Your task to perform on an android device: Show me productivity apps on the Play Store Image 0: 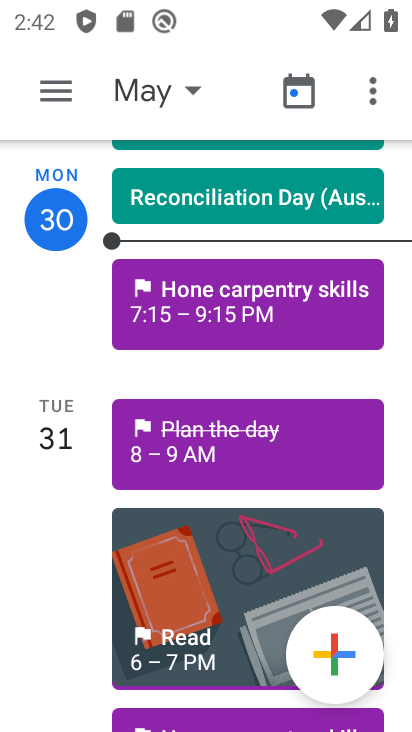
Step 0: press home button
Your task to perform on an android device: Show me productivity apps on the Play Store Image 1: 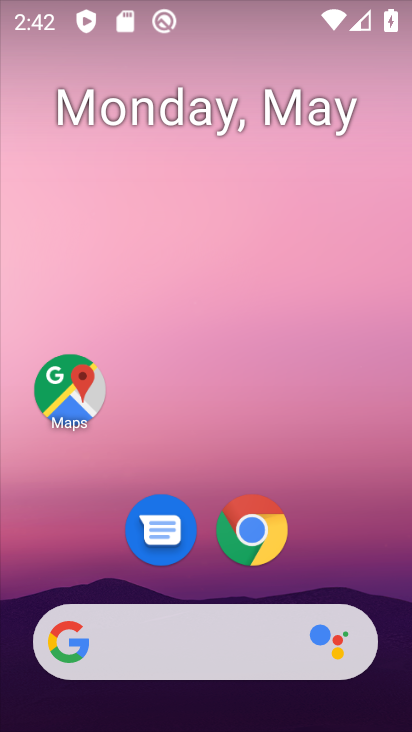
Step 1: drag from (188, 589) to (398, 222)
Your task to perform on an android device: Show me productivity apps on the Play Store Image 2: 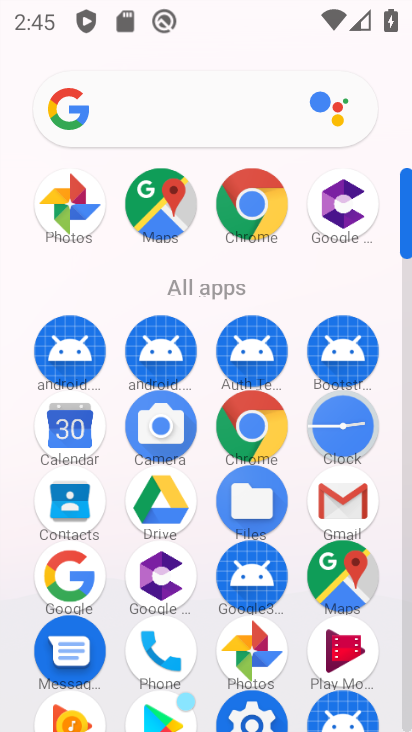
Step 2: click (145, 707)
Your task to perform on an android device: Show me productivity apps on the Play Store Image 3: 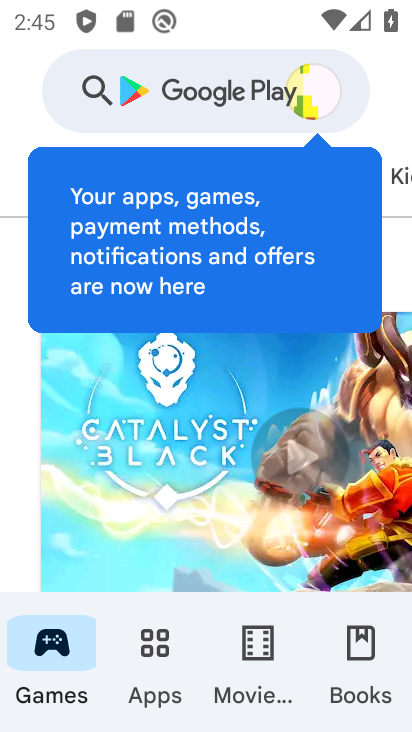
Step 3: click (321, 465)
Your task to perform on an android device: Show me productivity apps on the Play Store Image 4: 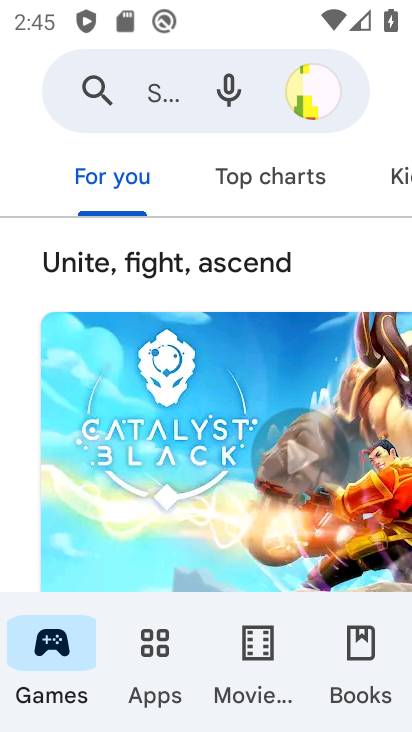
Step 4: click (149, 652)
Your task to perform on an android device: Show me productivity apps on the Play Store Image 5: 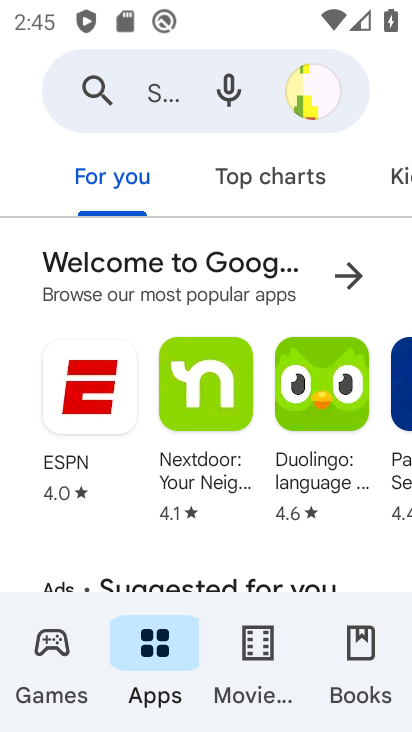
Step 5: click (273, 152)
Your task to perform on an android device: Show me productivity apps on the Play Store Image 6: 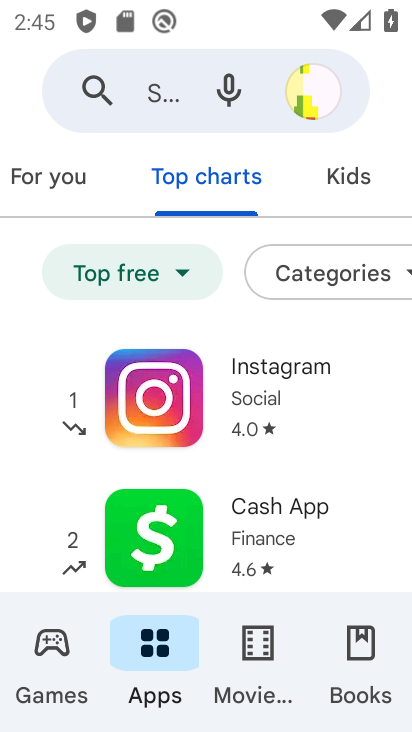
Step 6: click (377, 178)
Your task to perform on an android device: Show me productivity apps on the Play Store Image 7: 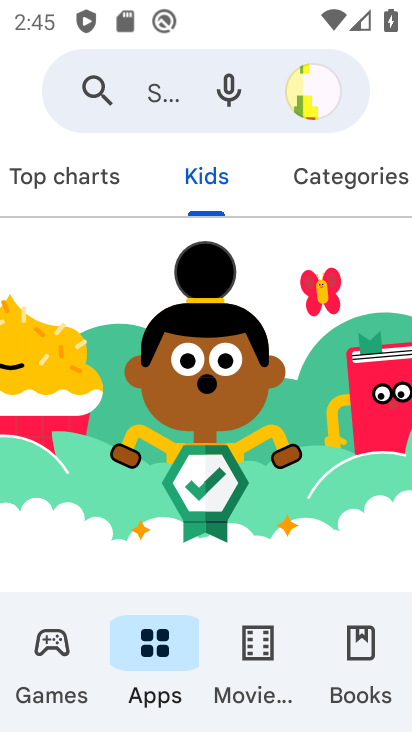
Step 7: click (366, 180)
Your task to perform on an android device: Show me productivity apps on the Play Store Image 8: 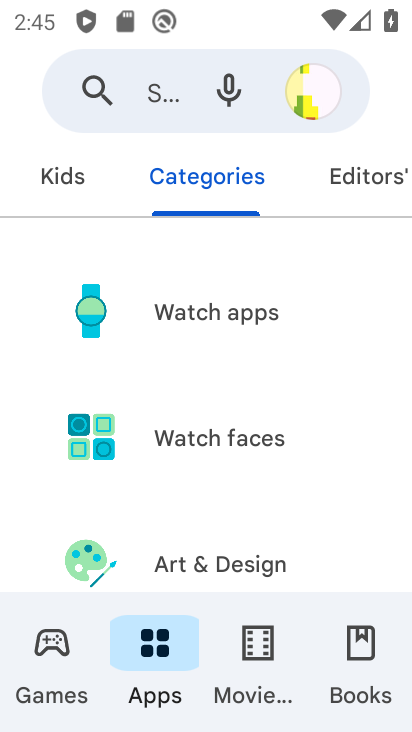
Step 8: drag from (117, 479) to (149, 96)
Your task to perform on an android device: Show me productivity apps on the Play Store Image 9: 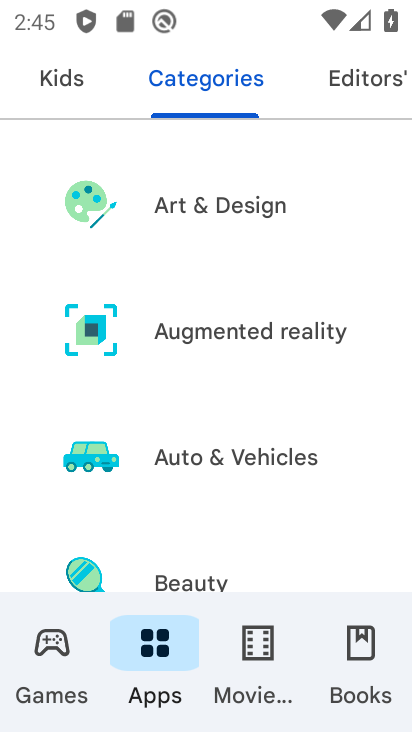
Step 9: drag from (108, 467) to (146, 201)
Your task to perform on an android device: Show me productivity apps on the Play Store Image 10: 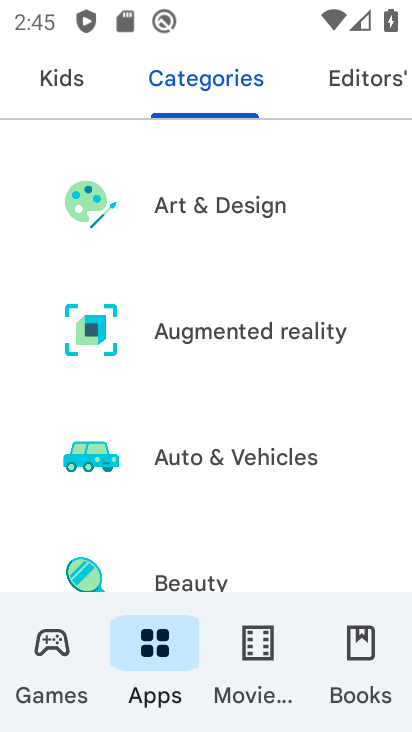
Step 10: drag from (117, 392) to (145, 150)
Your task to perform on an android device: Show me productivity apps on the Play Store Image 11: 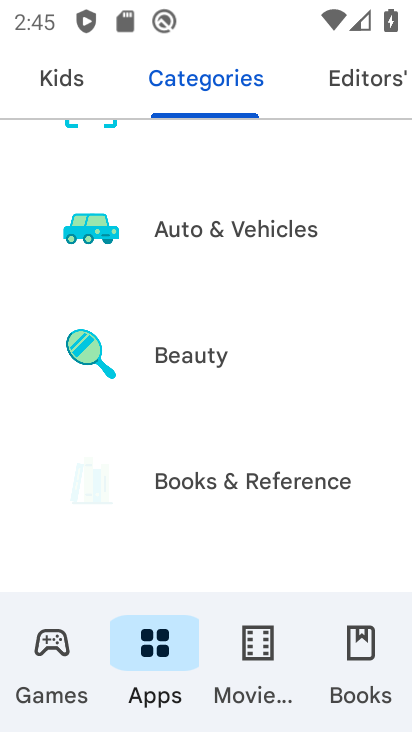
Step 11: drag from (104, 205) to (93, 111)
Your task to perform on an android device: Show me productivity apps on the Play Store Image 12: 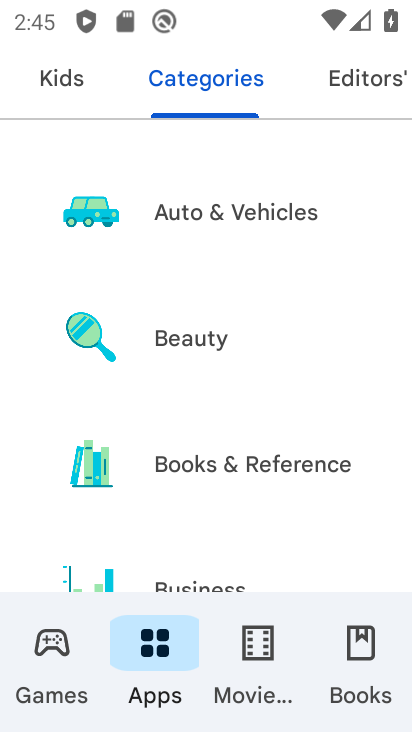
Step 12: drag from (69, 574) to (179, 104)
Your task to perform on an android device: Show me productivity apps on the Play Store Image 13: 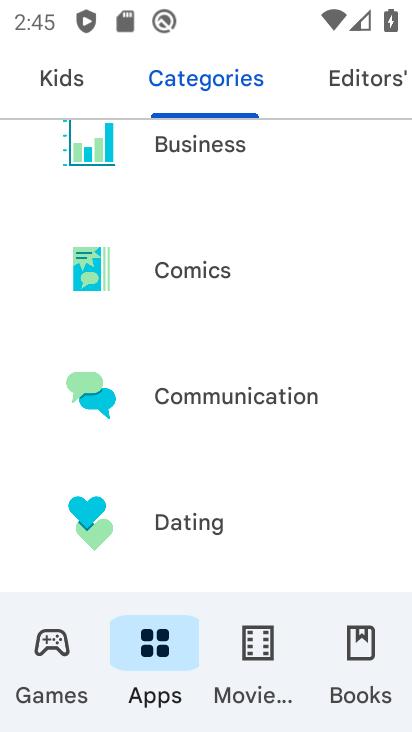
Step 13: drag from (38, 532) to (106, 23)
Your task to perform on an android device: Show me productivity apps on the Play Store Image 14: 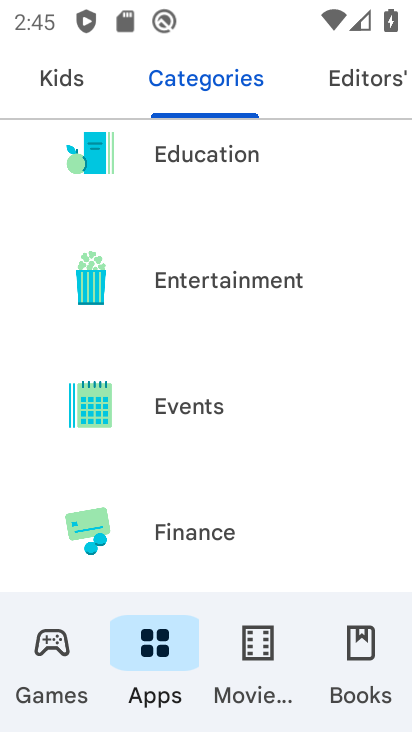
Step 14: drag from (66, 575) to (164, 64)
Your task to perform on an android device: Show me productivity apps on the Play Store Image 15: 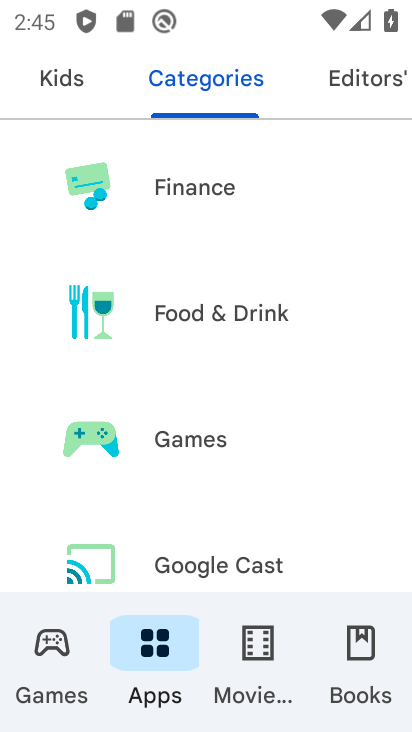
Step 15: drag from (54, 518) to (124, 119)
Your task to perform on an android device: Show me productivity apps on the Play Store Image 16: 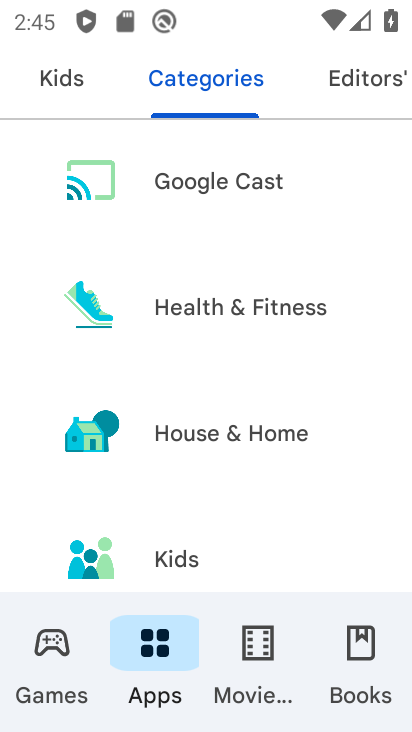
Step 16: drag from (74, 577) to (114, 90)
Your task to perform on an android device: Show me productivity apps on the Play Store Image 17: 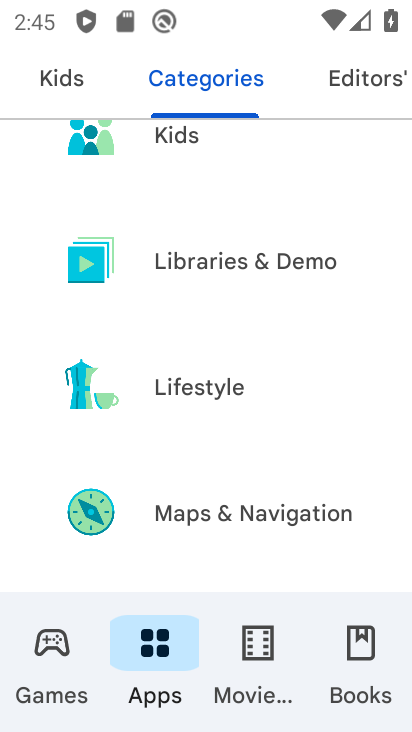
Step 17: click (134, 231)
Your task to perform on an android device: Show me productivity apps on the Play Store Image 18: 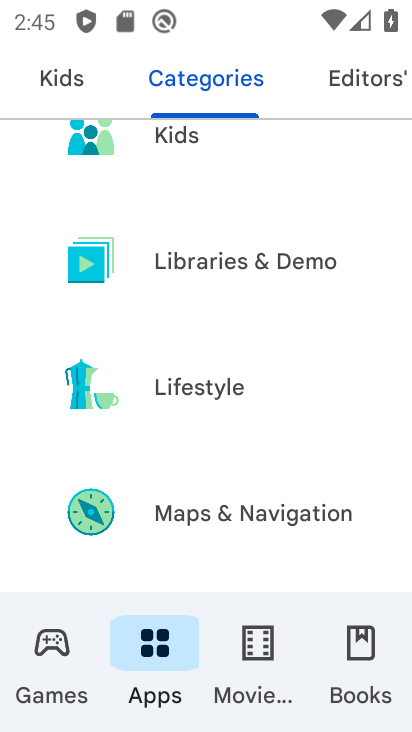
Step 18: drag from (99, 571) to (180, 3)
Your task to perform on an android device: Show me productivity apps on the Play Store Image 19: 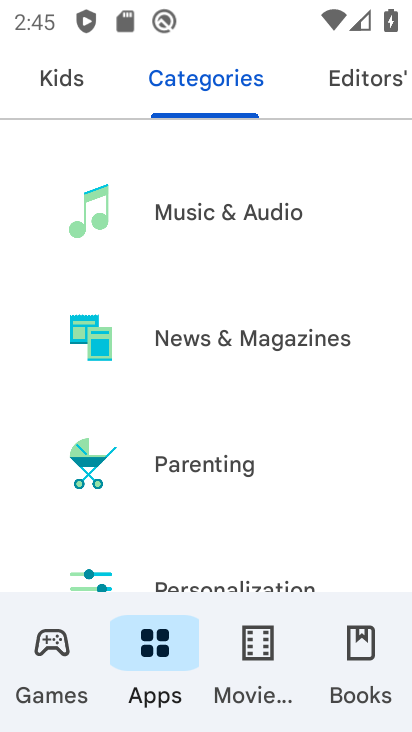
Step 19: drag from (104, 506) to (115, 271)
Your task to perform on an android device: Show me productivity apps on the Play Store Image 20: 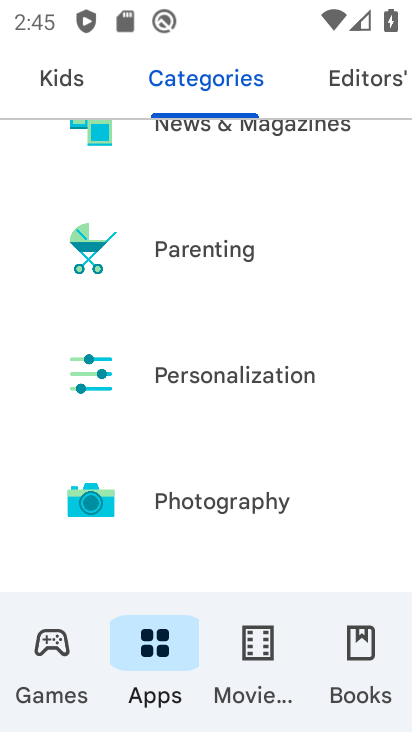
Step 20: drag from (98, 536) to (202, 52)
Your task to perform on an android device: Show me productivity apps on the Play Store Image 21: 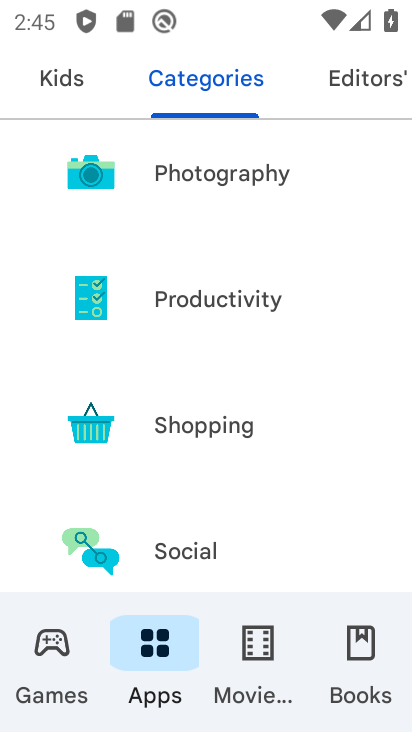
Step 21: click (82, 293)
Your task to perform on an android device: Show me productivity apps on the Play Store Image 22: 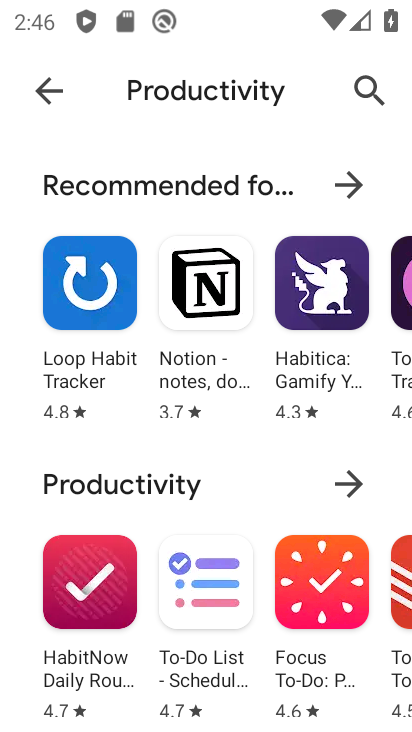
Step 22: click (272, 491)
Your task to perform on an android device: Show me productivity apps on the Play Store Image 23: 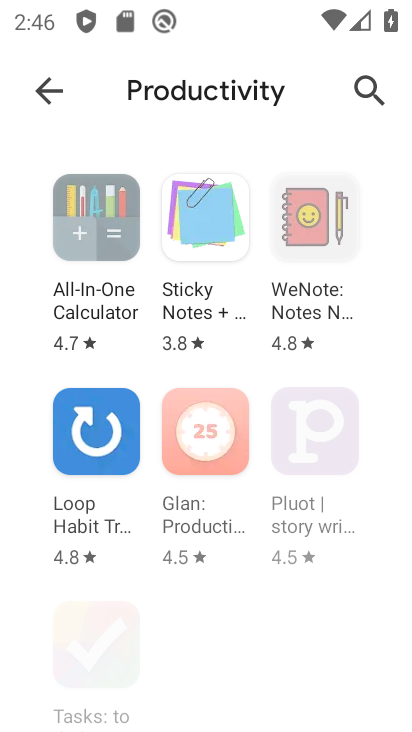
Step 23: click (365, 481)
Your task to perform on an android device: Show me productivity apps on the Play Store Image 24: 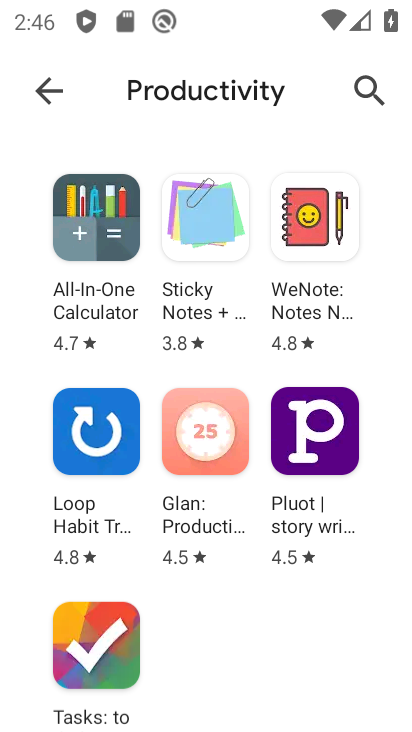
Step 24: click (335, 484)
Your task to perform on an android device: Show me productivity apps on the Play Store Image 25: 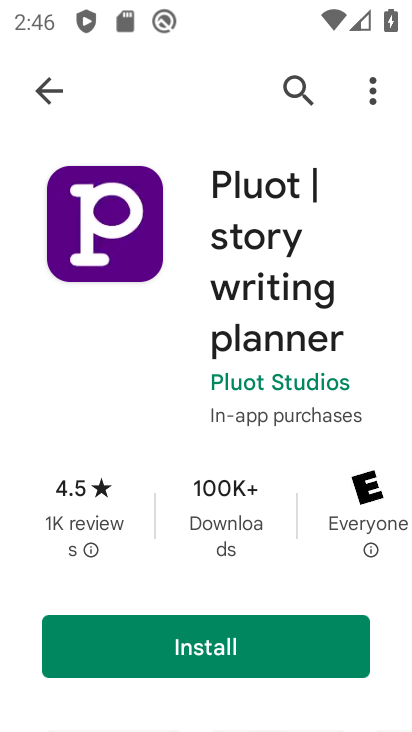
Step 25: task complete